Your task to perform on an android device: turn on priority inbox in the gmail app Image 0: 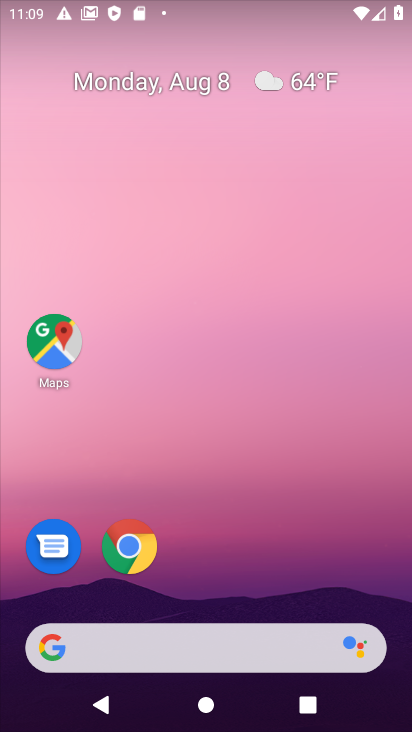
Step 0: press home button
Your task to perform on an android device: turn on priority inbox in the gmail app Image 1: 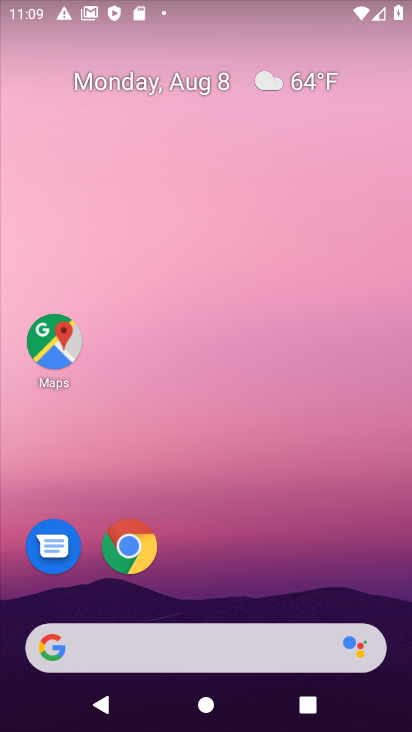
Step 1: drag from (227, 599) to (236, 19)
Your task to perform on an android device: turn on priority inbox in the gmail app Image 2: 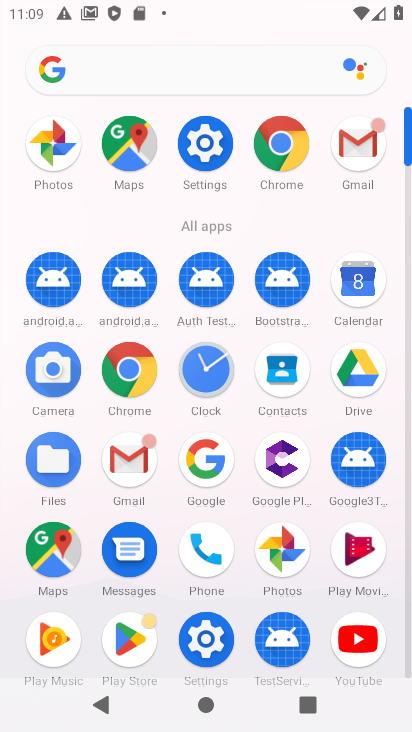
Step 2: click (355, 137)
Your task to perform on an android device: turn on priority inbox in the gmail app Image 3: 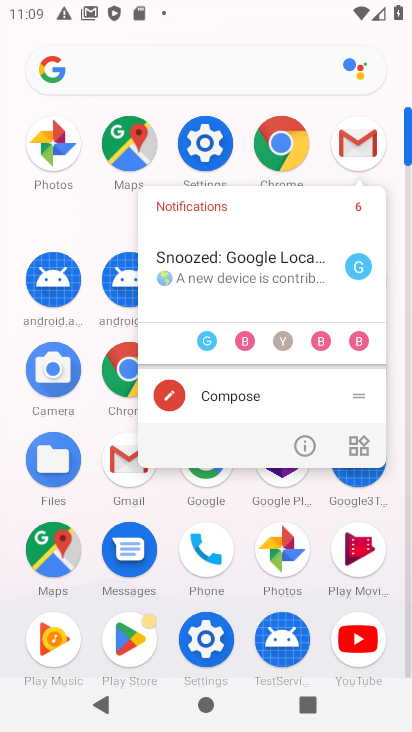
Step 3: click (357, 137)
Your task to perform on an android device: turn on priority inbox in the gmail app Image 4: 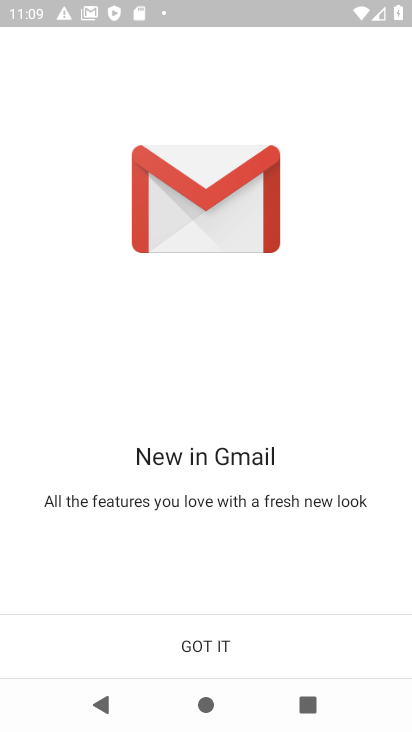
Step 4: click (203, 649)
Your task to perform on an android device: turn on priority inbox in the gmail app Image 5: 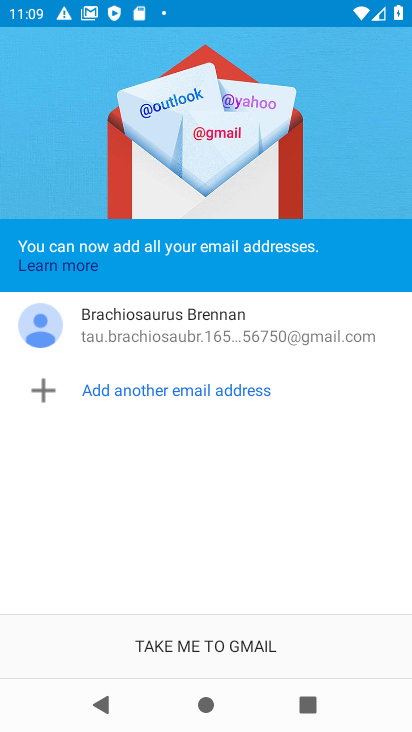
Step 5: click (208, 647)
Your task to perform on an android device: turn on priority inbox in the gmail app Image 6: 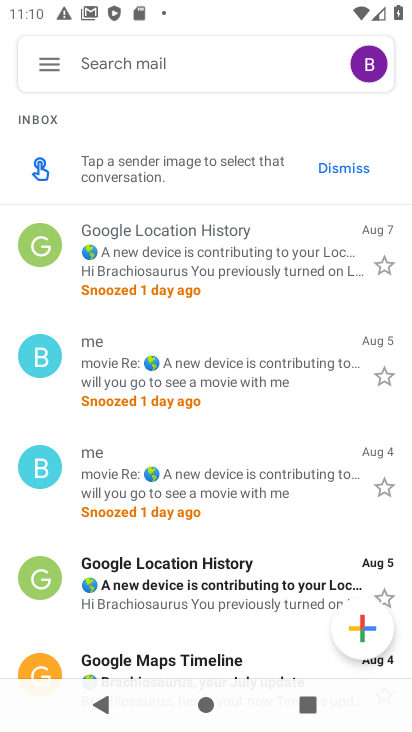
Step 6: click (54, 64)
Your task to perform on an android device: turn on priority inbox in the gmail app Image 7: 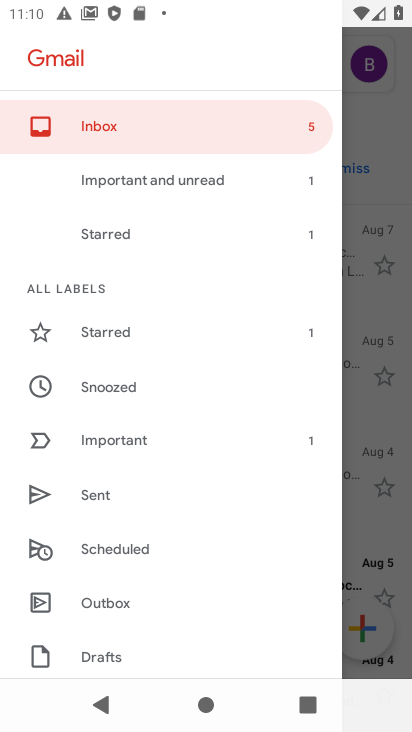
Step 7: drag from (182, 616) to (205, 168)
Your task to perform on an android device: turn on priority inbox in the gmail app Image 8: 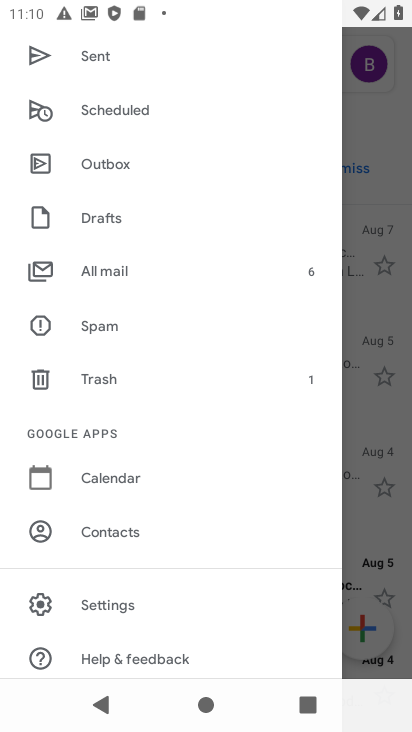
Step 8: click (139, 601)
Your task to perform on an android device: turn on priority inbox in the gmail app Image 9: 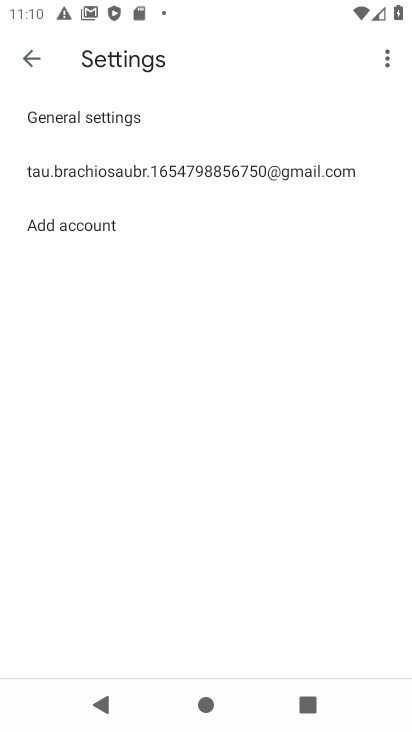
Step 9: click (203, 164)
Your task to perform on an android device: turn on priority inbox in the gmail app Image 10: 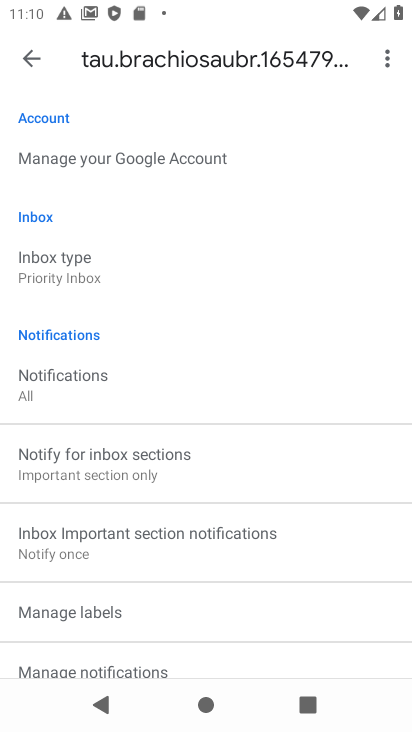
Step 10: click (113, 258)
Your task to perform on an android device: turn on priority inbox in the gmail app Image 11: 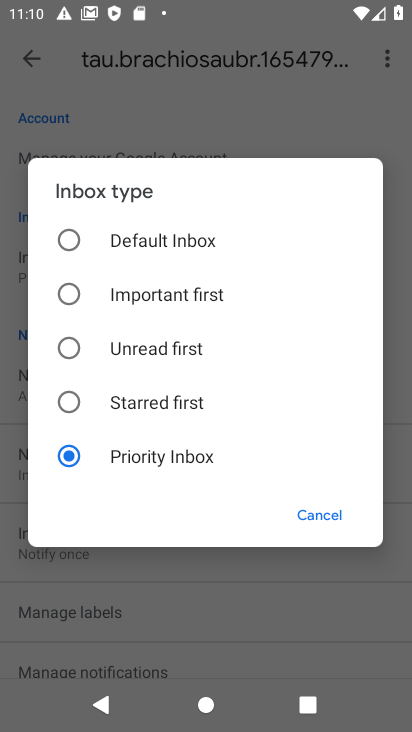
Step 11: click (78, 448)
Your task to perform on an android device: turn on priority inbox in the gmail app Image 12: 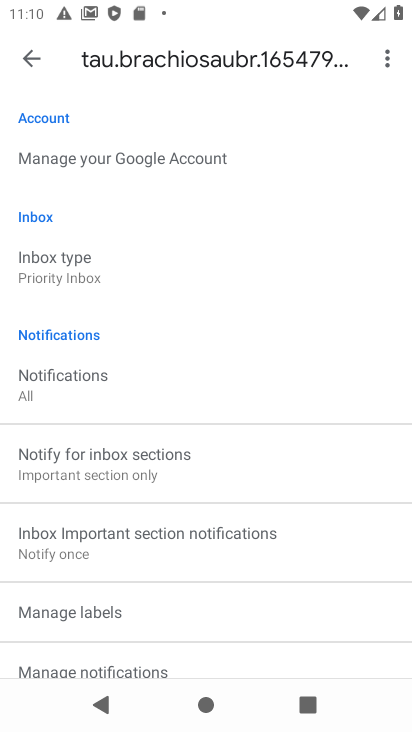
Step 12: task complete